Your task to perform on an android device: Is it going to rain today? Image 0: 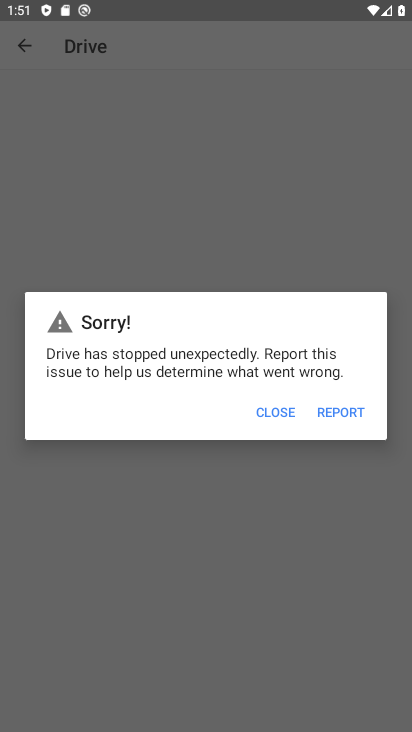
Step 0: press home button
Your task to perform on an android device: Is it going to rain today? Image 1: 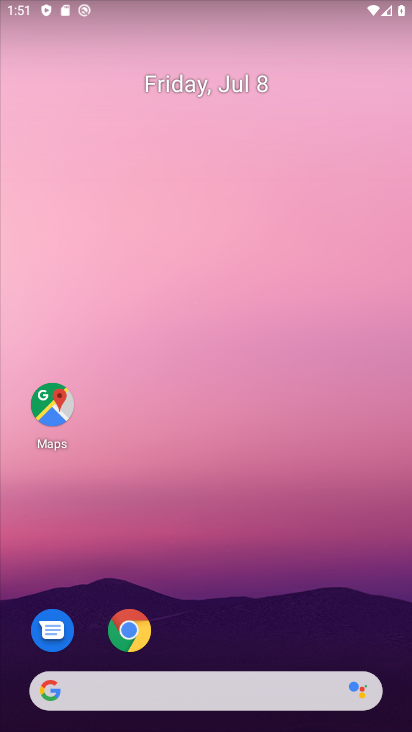
Step 1: drag from (262, 640) to (240, 93)
Your task to perform on an android device: Is it going to rain today? Image 2: 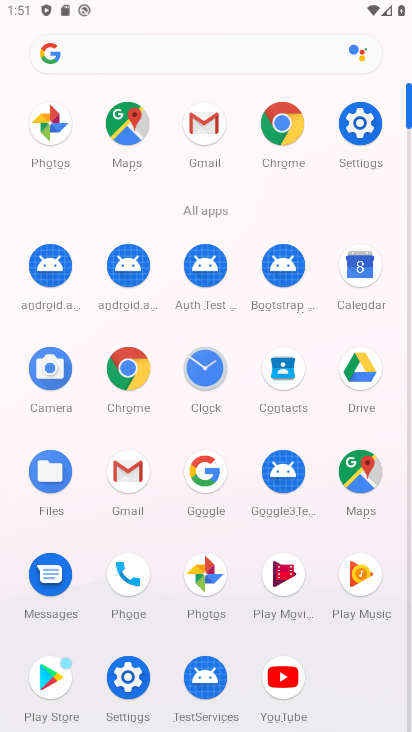
Step 2: click (295, 126)
Your task to perform on an android device: Is it going to rain today? Image 3: 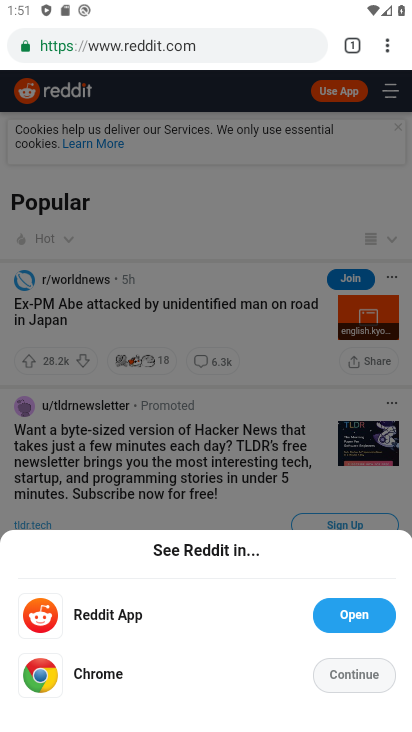
Step 3: click (200, 44)
Your task to perform on an android device: Is it going to rain today? Image 4: 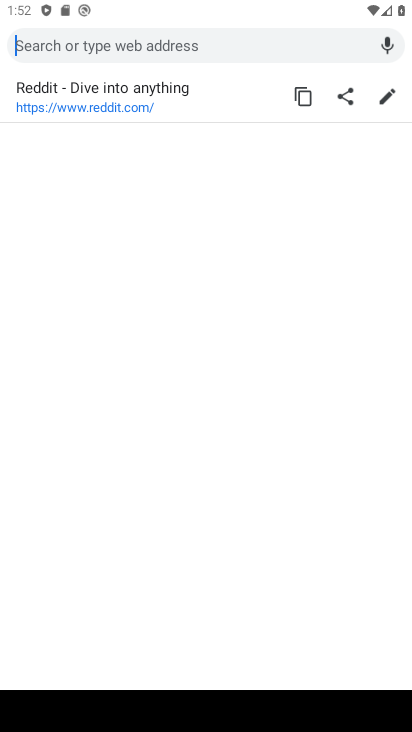
Step 4: type "weather"
Your task to perform on an android device: Is it going to rain today? Image 5: 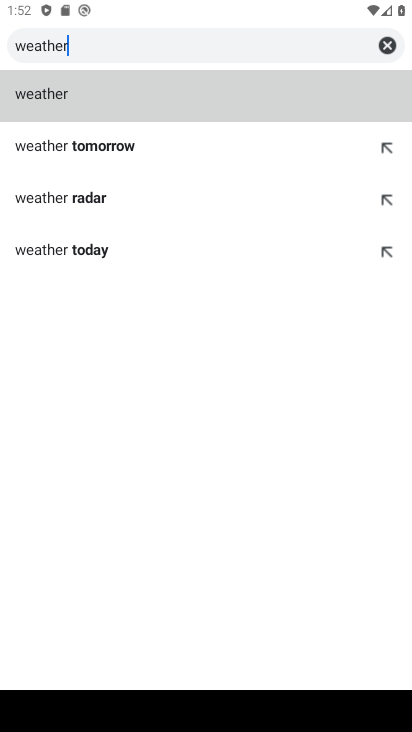
Step 5: click (60, 91)
Your task to perform on an android device: Is it going to rain today? Image 6: 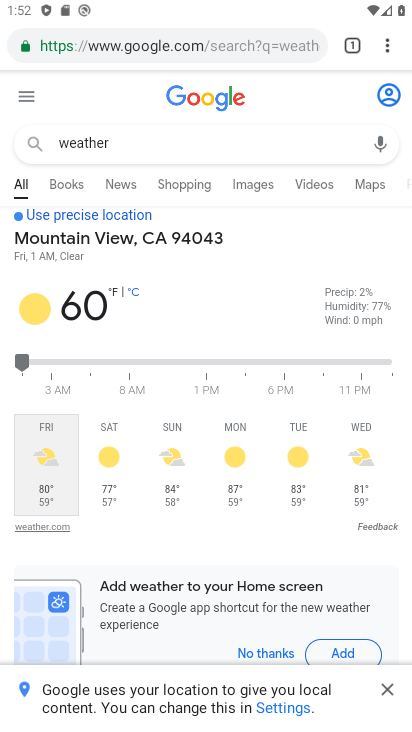
Step 6: task complete